Your task to perform on an android device: Open location settings Image 0: 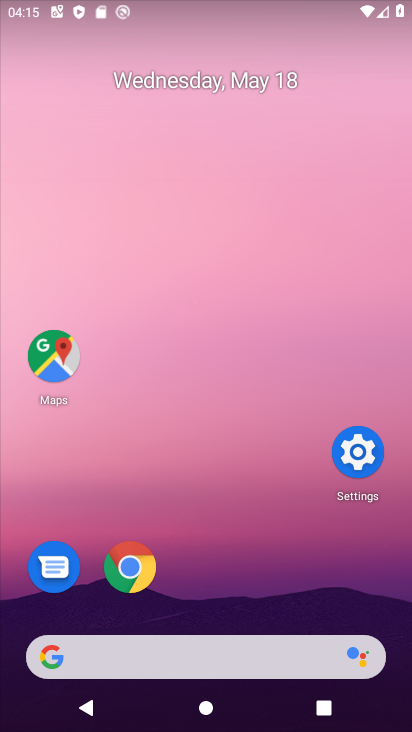
Step 0: drag from (200, 607) to (206, 419)
Your task to perform on an android device: Open location settings Image 1: 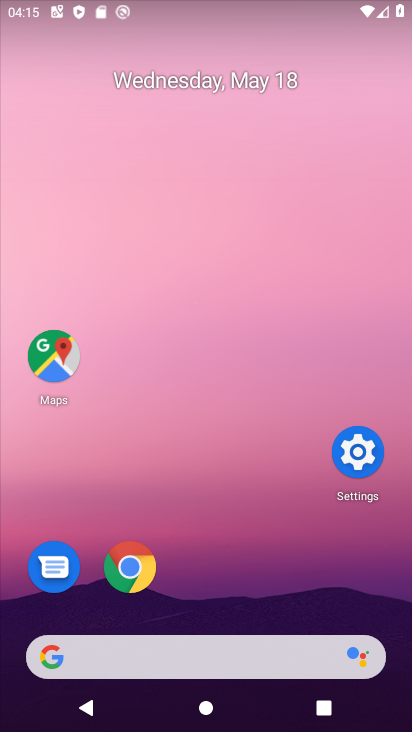
Step 1: click (40, 357)
Your task to perform on an android device: Open location settings Image 2: 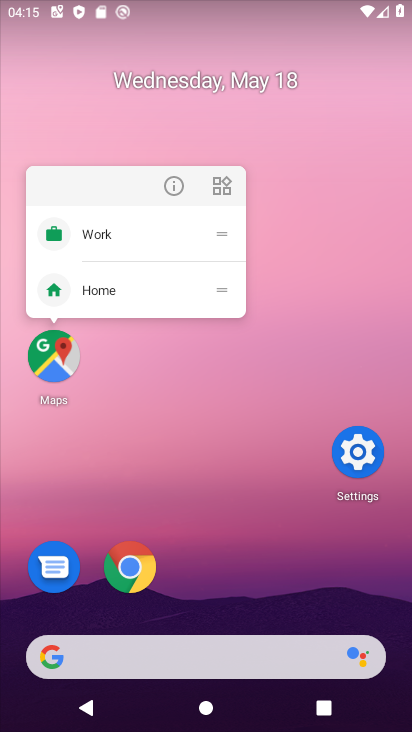
Step 2: click (27, 350)
Your task to perform on an android device: Open location settings Image 3: 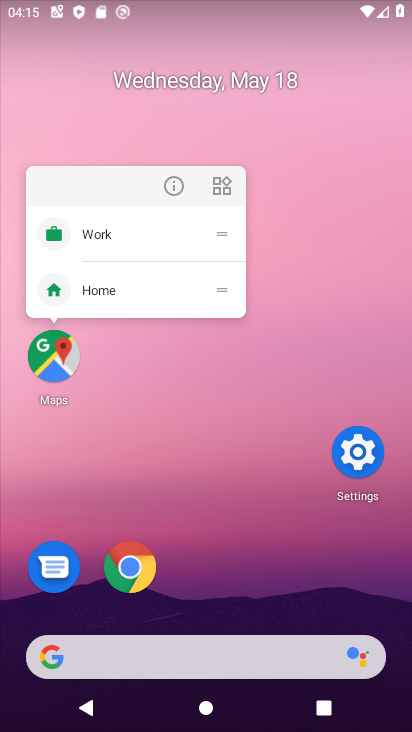
Step 3: click (59, 361)
Your task to perform on an android device: Open location settings Image 4: 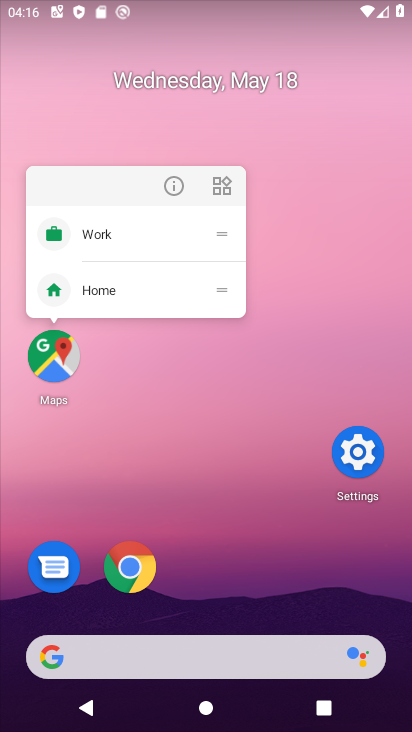
Step 4: click (59, 361)
Your task to perform on an android device: Open location settings Image 5: 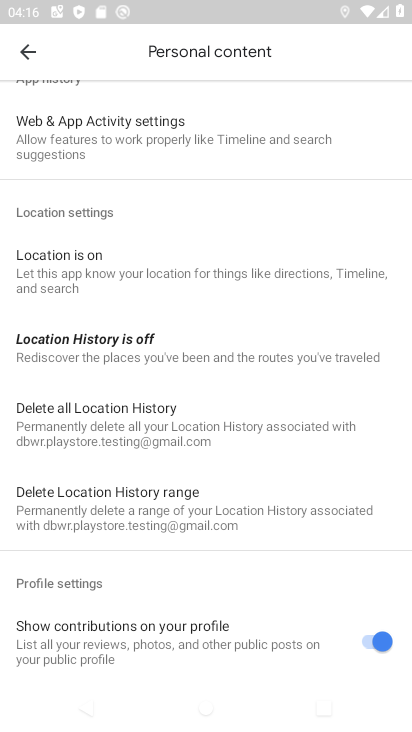
Step 5: drag from (241, 190) to (204, 502)
Your task to perform on an android device: Open location settings Image 6: 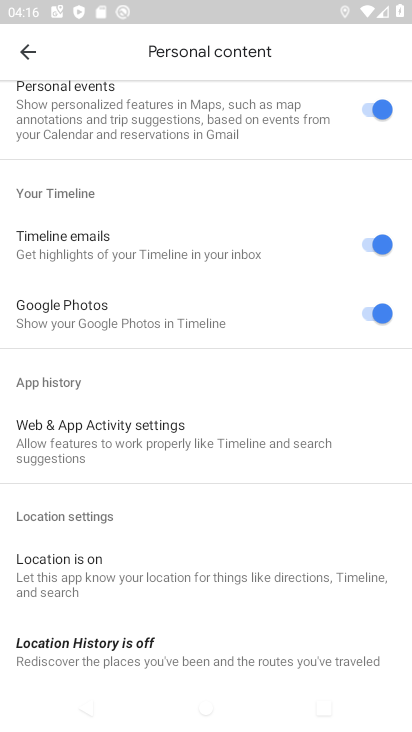
Step 6: click (53, 581)
Your task to perform on an android device: Open location settings Image 7: 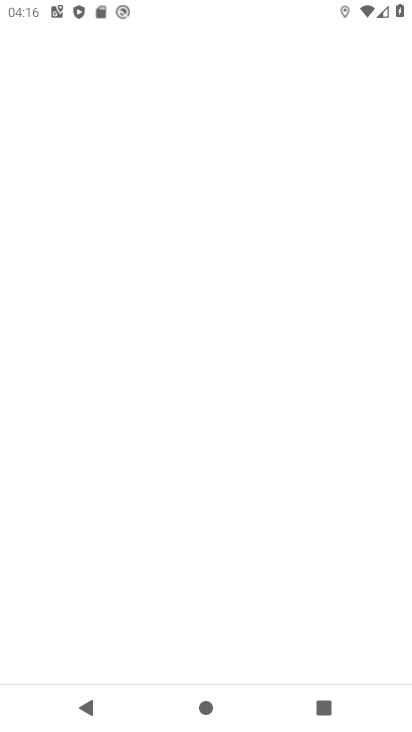
Step 7: click (48, 576)
Your task to perform on an android device: Open location settings Image 8: 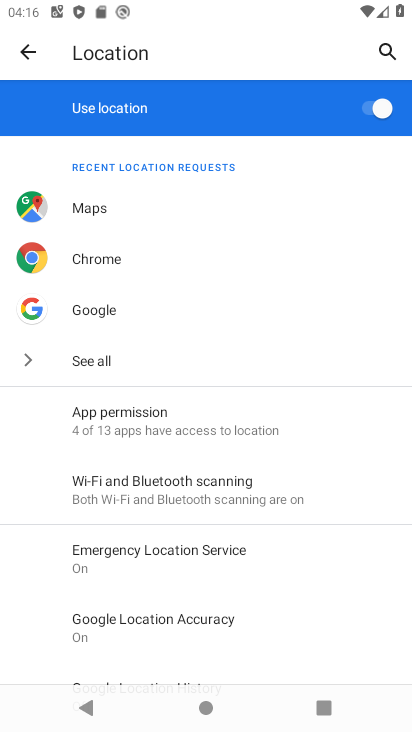
Step 8: task complete